Your task to perform on an android device: toggle show notifications on the lock screen Image 0: 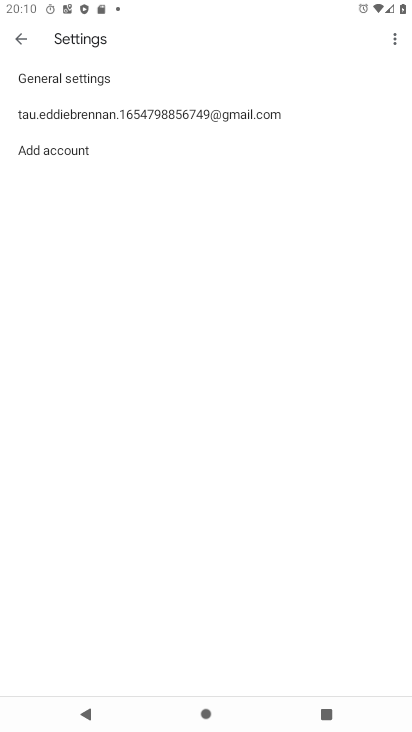
Step 0: press home button
Your task to perform on an android device: toggle show notifications on the lock screen Image 1: 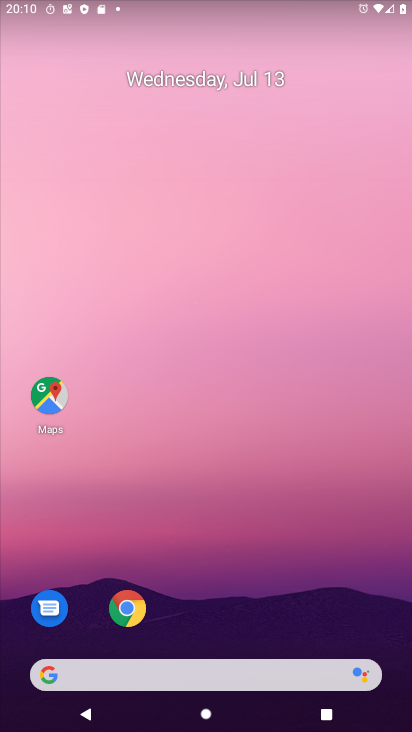
Step 1: drag from (216, 640) to (196, 146)
Your task to perform on an android device: toggle show notifications on the lock screen Image 2: 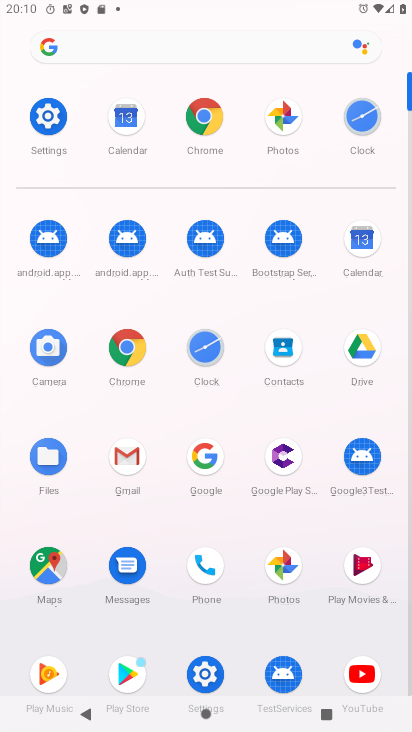
Step 2: click (46, 124)
Your task to perform on an android device: toggle show notifications on the lock screen Image 3: 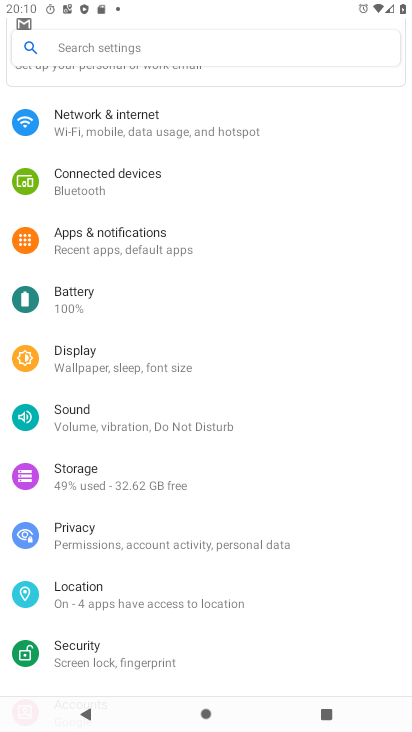
Step 3: click (134, 246)
Your task to perform on an android device: toggle show notifications on the lock screen Image 4: 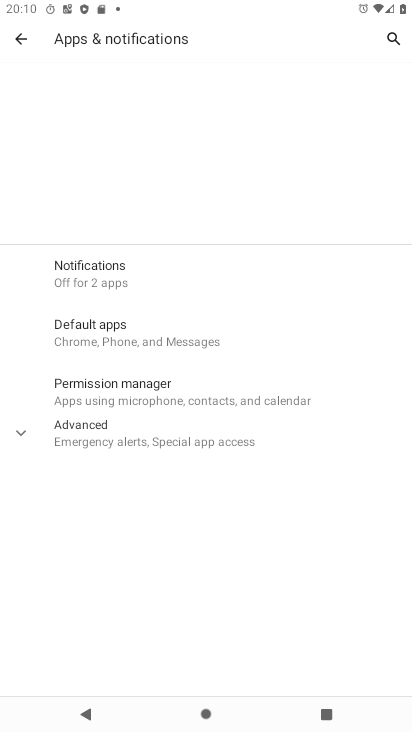
Step 4: click (126, 272)
Your task to perform on an android device: toggle show notifications on the lock screen Image 5: 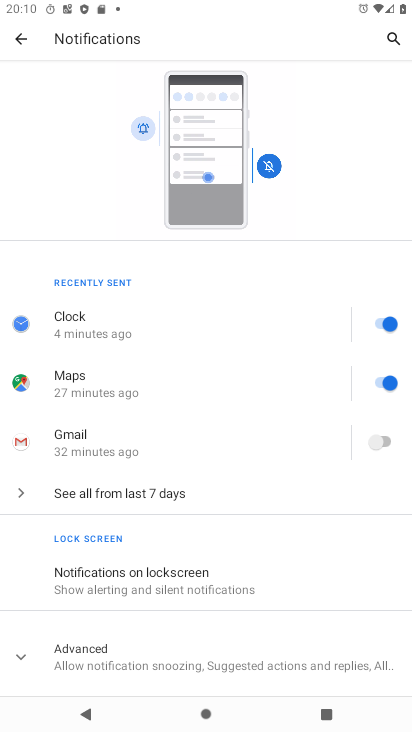
Step 5: click (174, 582)
Your task to perform on an android device: toggle show notifications on the lock screen Image 6: 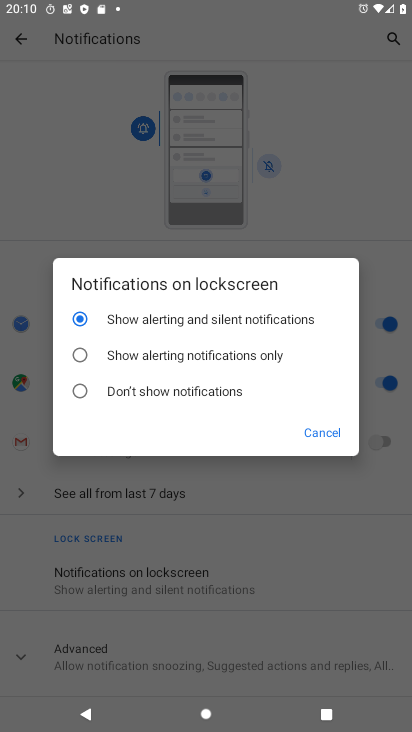
Step 6: click (115, 351)
Your task to perform on an android device: toggle show notifications on the lock screen Image 7: 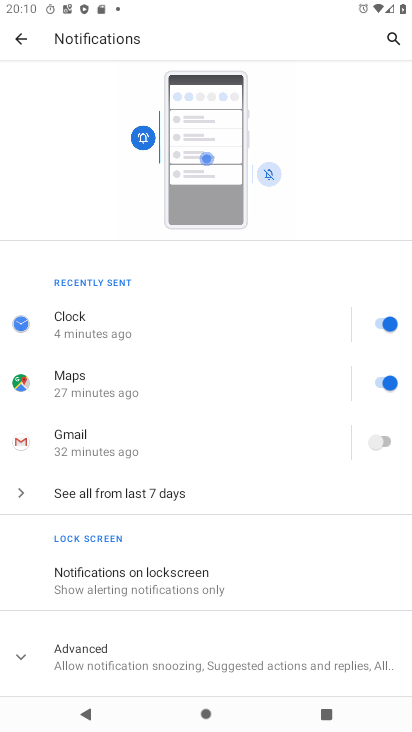
Step 7: task complete